Your task to perform on an android device: turn on sleep mode Image 0: 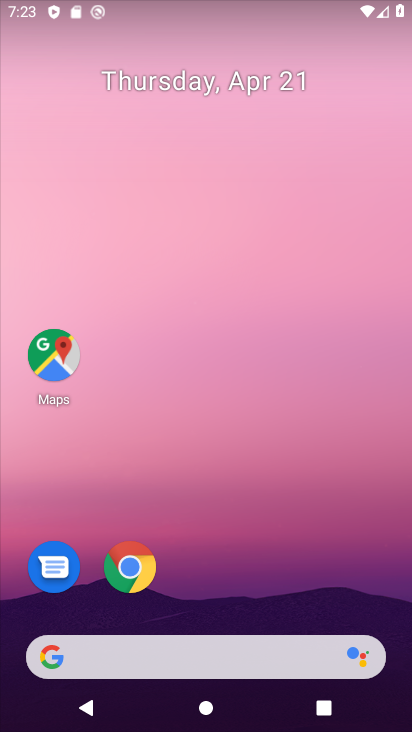
Step 0: drag from (230, 594) to (164, 246)
Your task to perform on an android device: turn on sleep mode Image 1: 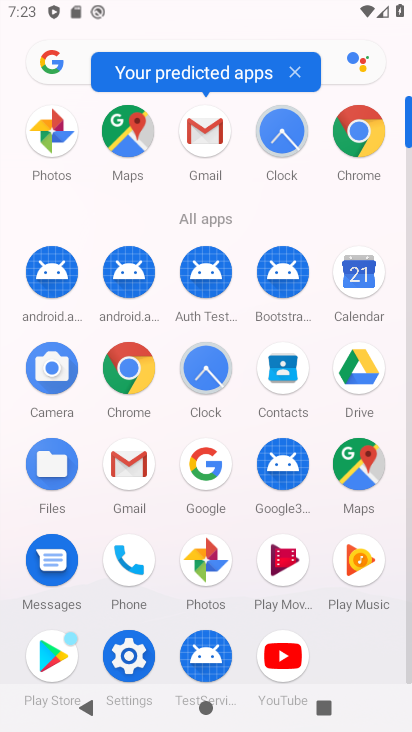
Step 1: task complete